Your task to perform on an android device: allow notifications from all sites in the chrome app Image 0: 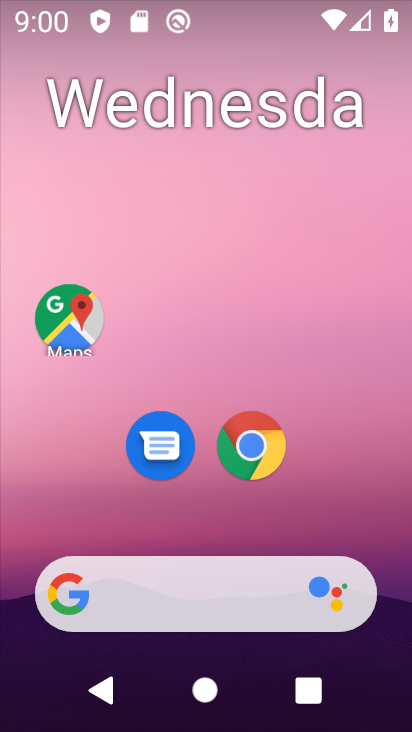
Step 0: drag from (202, 507) to (236, 136)
Your task to perform on an android device: allow notifications from all sites in the chrome app Image 1: 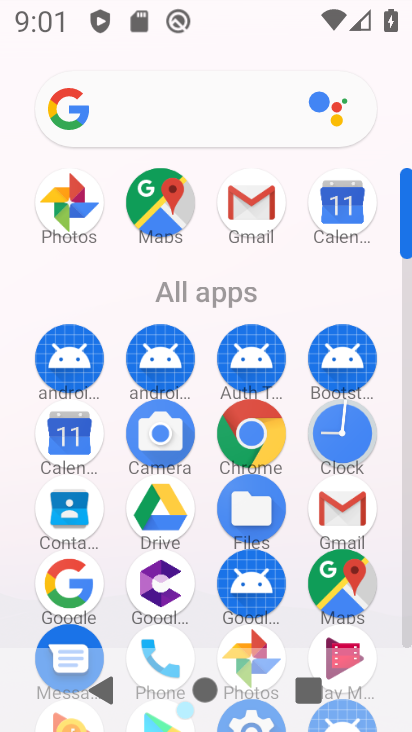
Step 1: drag from (216, 547) to (241, 124)
Your task to perform on an android device: allow notifications from all sites in the chrome app Image 2: 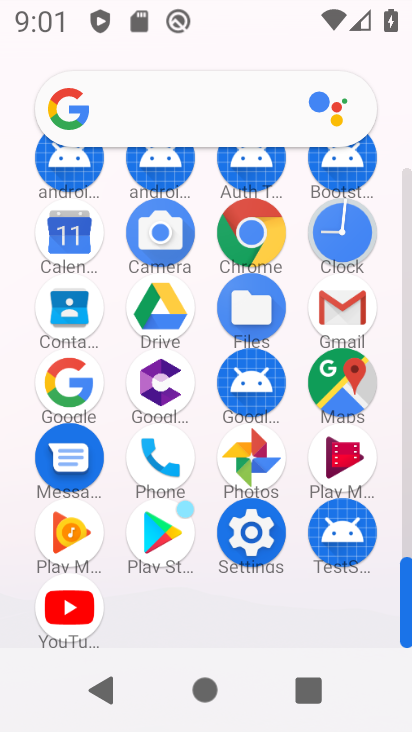
Step 2: click (246, 539)
Your task to perform on an android device: allow notifications from all sites in the chrome app Image 3: 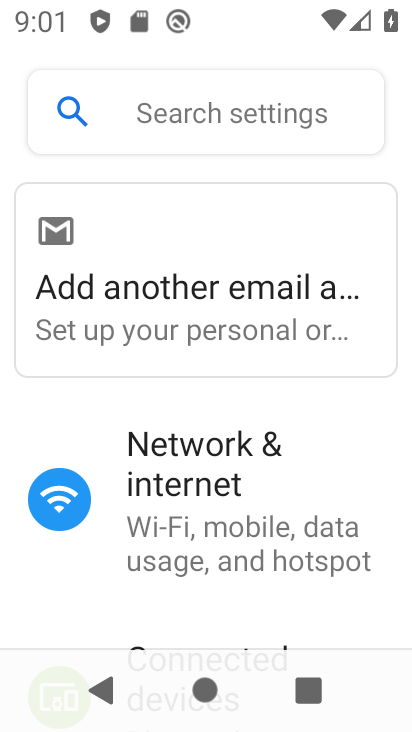
Step 3: drag from (209, 573) to (242, 139)
Your task to perform on an android device: allow notifications from all sites in the chrome app Image 4: 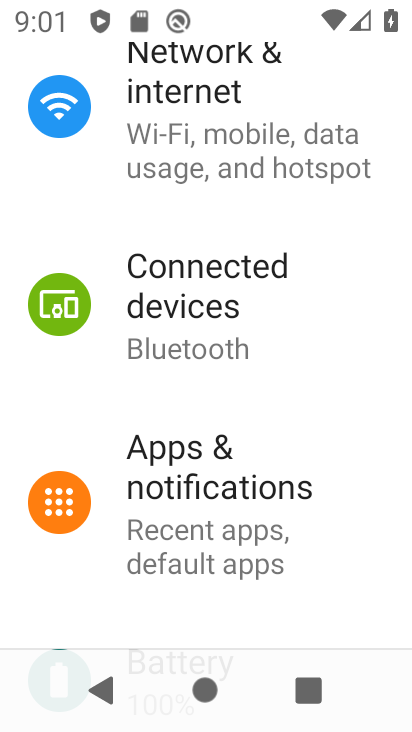
Step 4: click (169, 505)
Your task to perform on an android device: allow notifications from all sites in the chrome app Image 5: 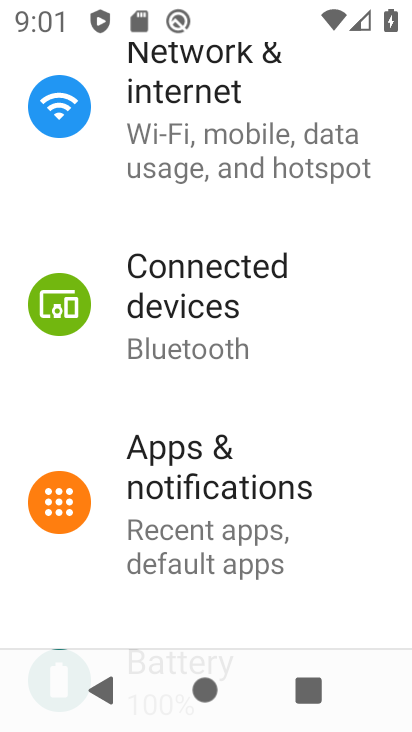
Step 5: press back button
Your task to perform on an android device: allow notifications from all sites in the chrome app Image 6: 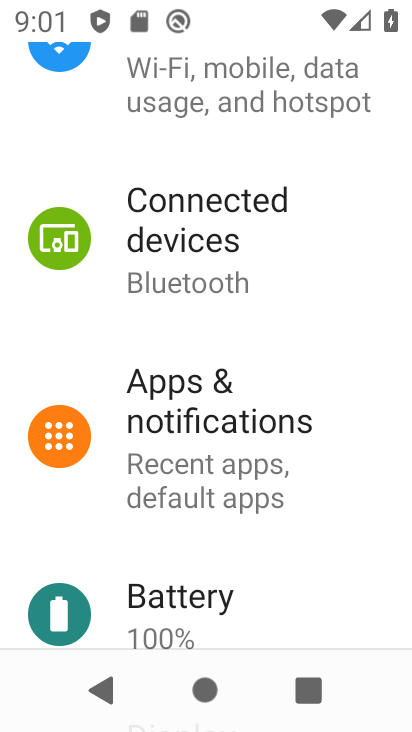
Step 6: press back button
Your task to perform on an android device: allow notifications from all sites in the chrome app Image 7: 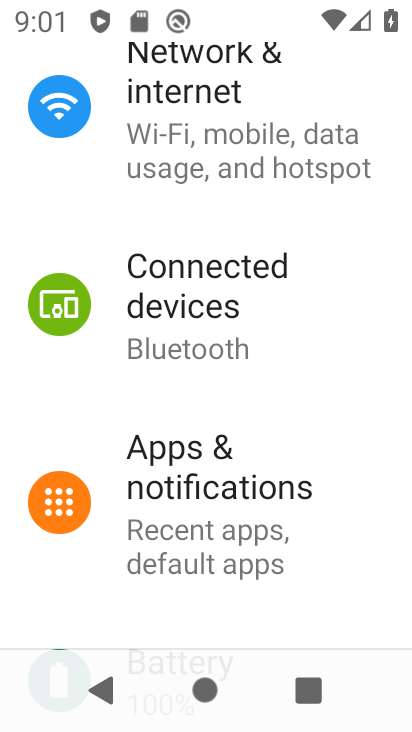
Step 7: press back button
Your task to perform on an android device: allow notifications from all sites in the chrome app Image 8: 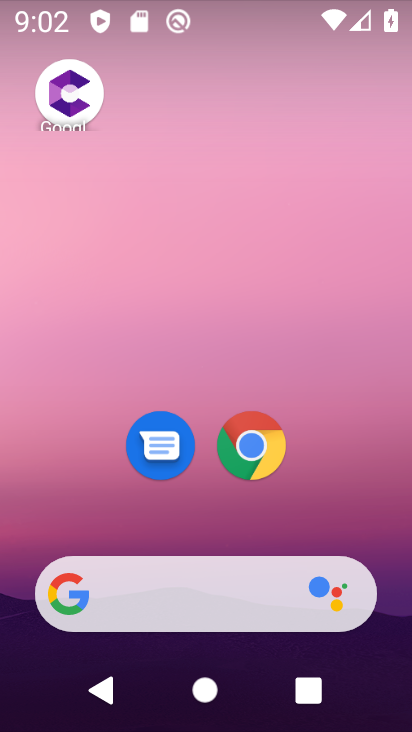
Step 8: click (255, 432)
Your task to perform on an android device: allow notifications from all sites in the chrome app Image 9: 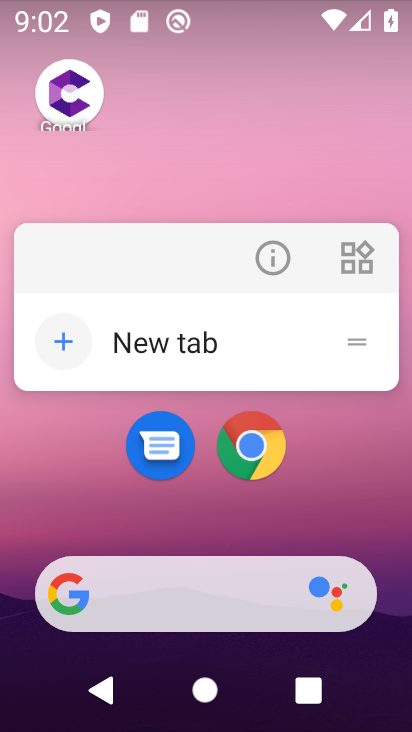
Step 9: click (260, 446)
Your task to perform on an android device: allow notifications from all sites in the chrome app Image 10: 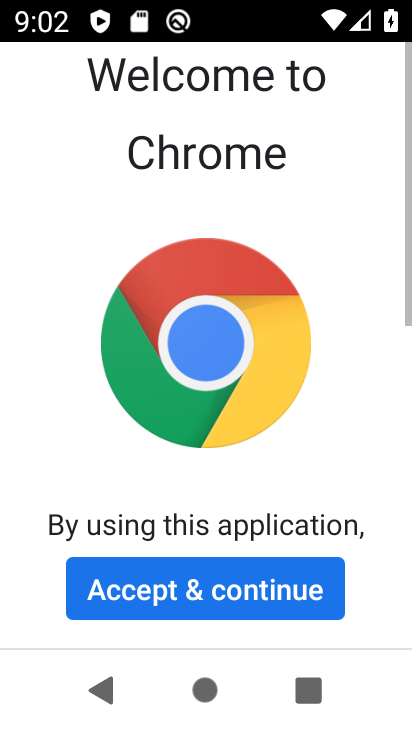
Step 10: click (202, 575)
Your task to perform on an android device: allow notifications from all sites in the chrome app Image 11: 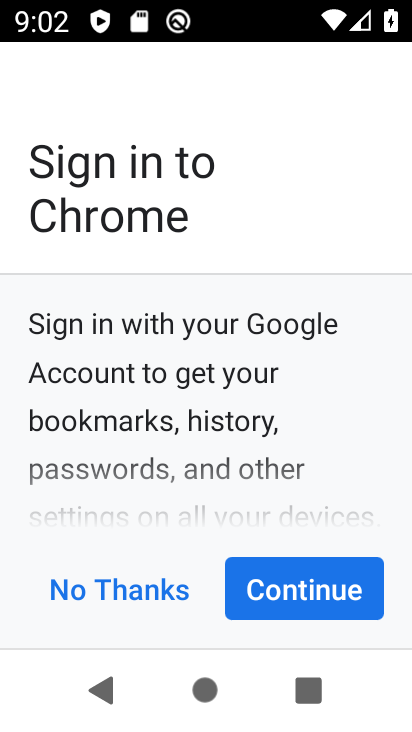
Step 11: click (304, 584)
Your task to perform on an android device: allow notifications from all sites in the chrome app Image 12: 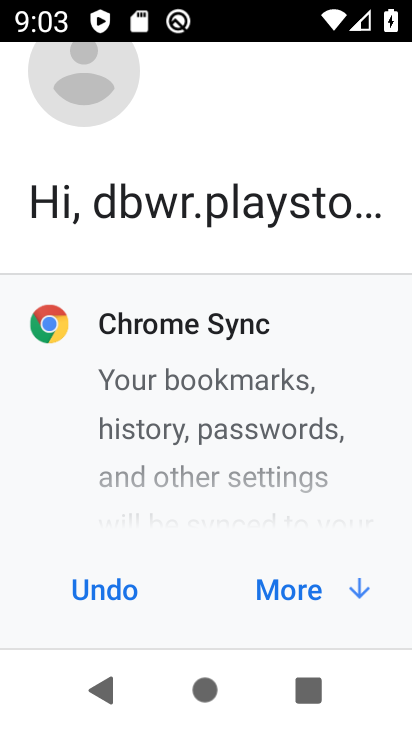
Step 12: click (328, 605)
Your task to perform on an android device: allow notifications from all sites in the chrome app Image 13: 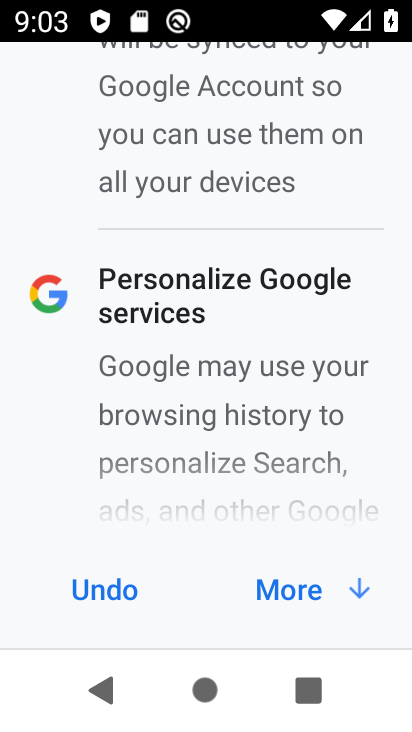
Step 13: click (324, 589)
Your task to perform on an android device: allow notifications from all sites in the chrome app Image 14: 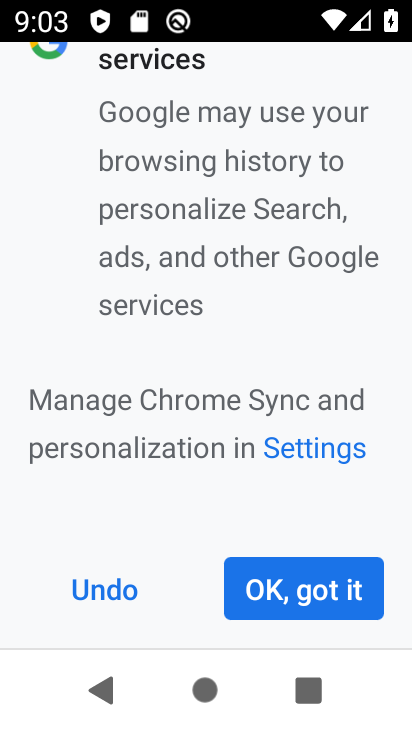
Step 14: click (318, 589)
Your task to perform on an android device: allow notifications from all sites in the chrome app Image 15: 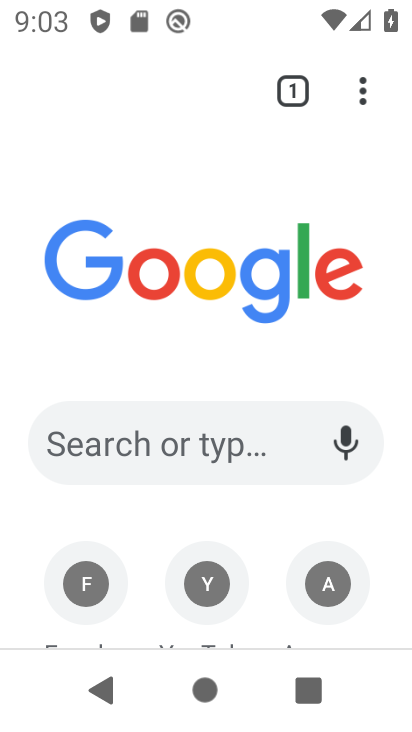
Step 15: drag from (368, 98) to (119, 467)
Your task to perform on an android device: allow notifications from all sites in the chrome app Image 16: 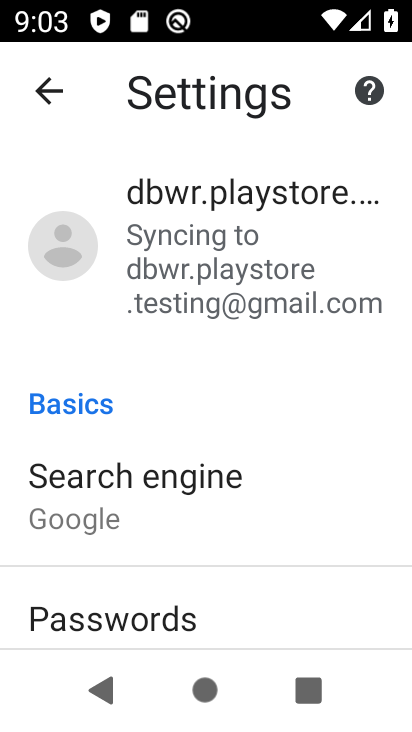
Step 16: drag from (144, 612) to (231, 148)
Your task to perform on an android device: allow notifications from all sites in the chrome app Image 17: 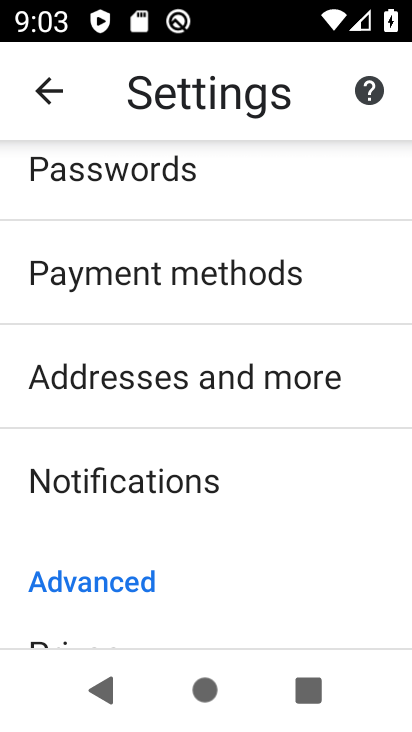
Step 17: click (128, 478)
Your task to perform on an android device: allow notifications from all sites in the chrome app Image 18: 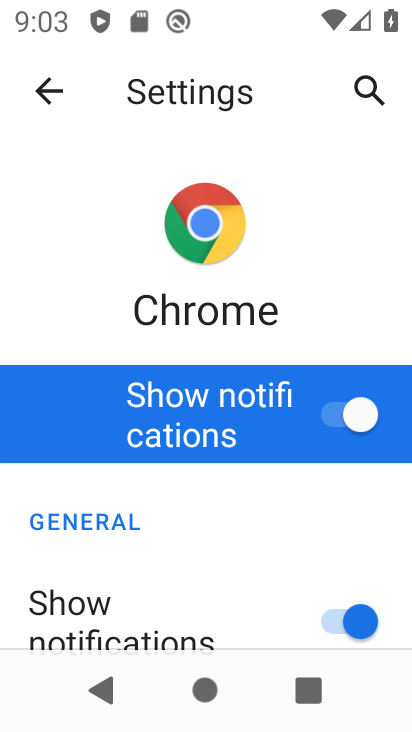
Step 18: task complete